Your task to perform on an android device: Show me recent news Image 0: 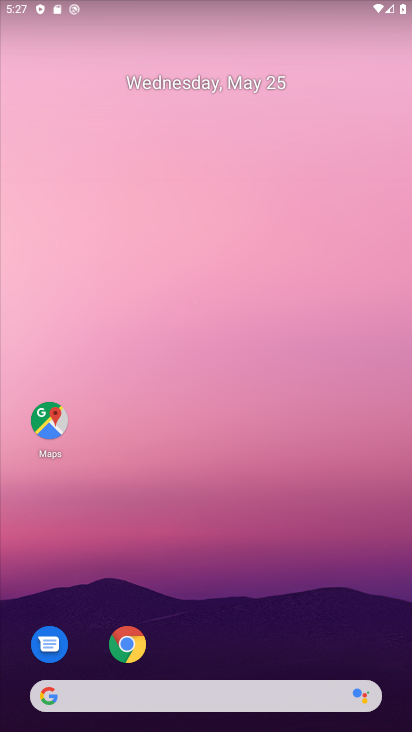
Step 0: click (131, 644)
Your task to perform on an android device: Show me recent news Image 1: 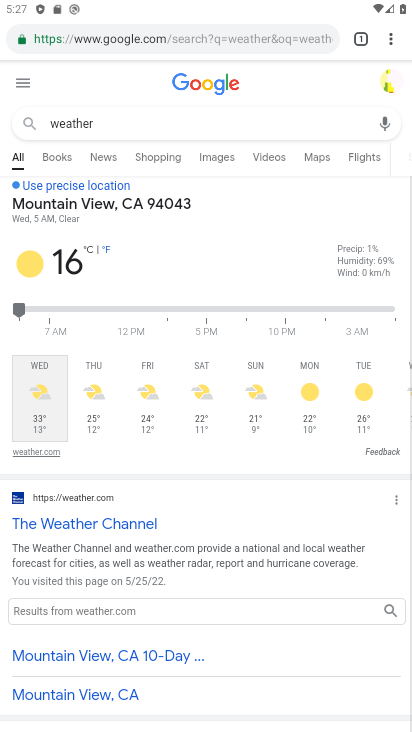
Step 1: click (141, 46)
Your task to perform on an android device: Show me recent news Image 2: 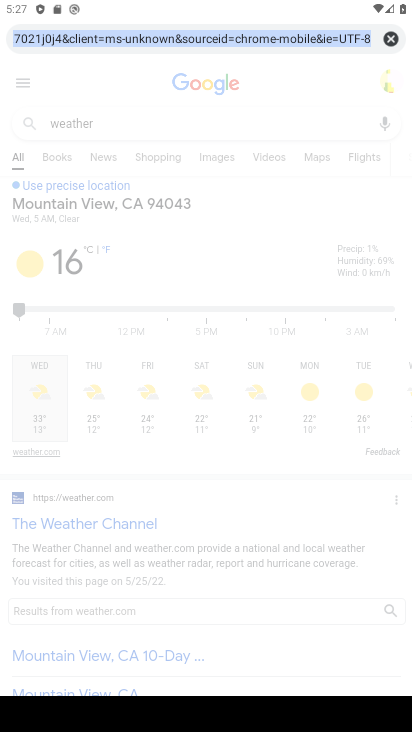
Step 2: click (392, 36)
Your task to perform on an android device: Show me recent news Image 3: 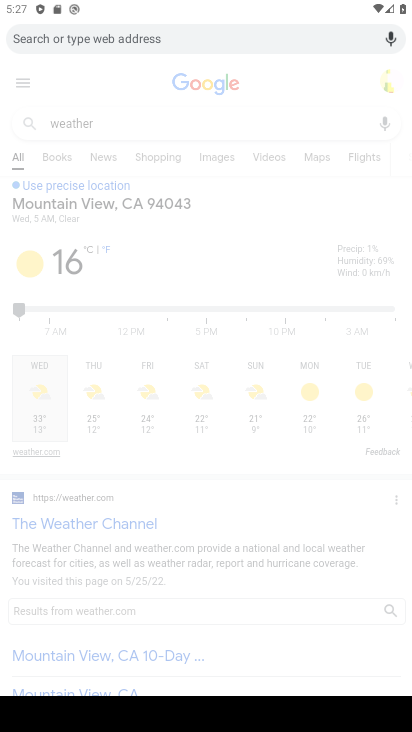
Step 3: type "Show me recent news"
Your task to perform on an android device: Show me recent news Image 4: 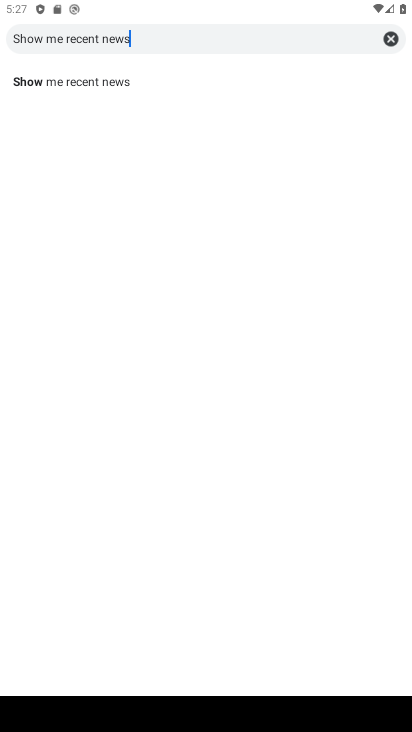
Step 4: type ""
Your task to perform on an android device: Show me recent news Image 5: 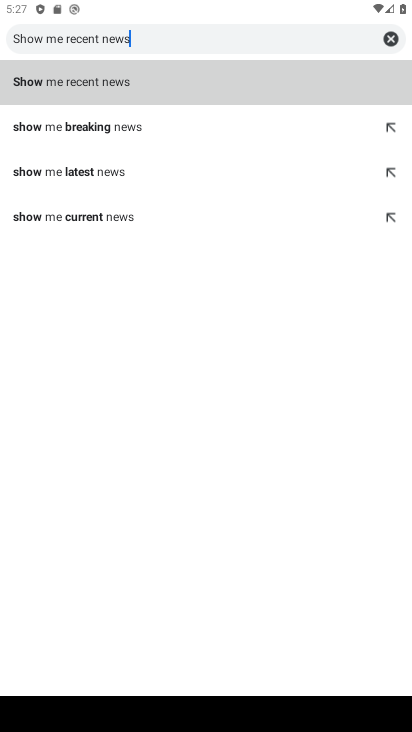
Step 5: click (138, 78)
Your task to perform on an android device: Show me recent news Image 6: 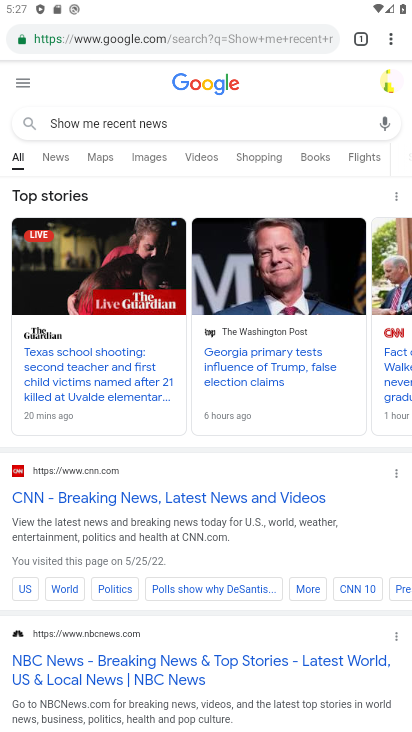
Step 6: task complete